Your task to perform on an android device: turn on the 24-hour format for clock Image 0: 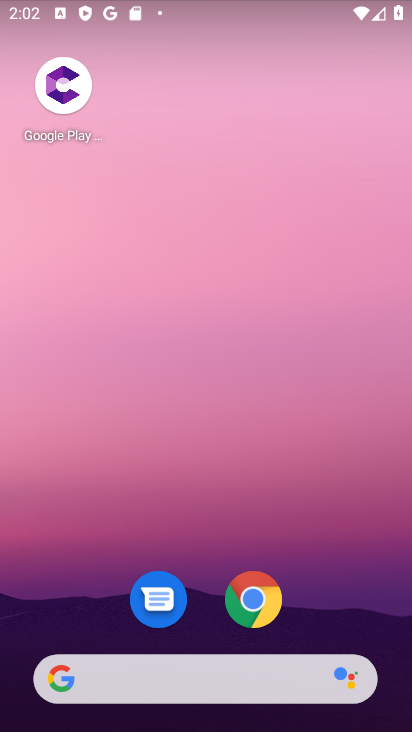
Step 0: drag from (337, 579) to (229, 21)
Your task to perform on an android device: turn on the 24-hour format for clock Image 1: 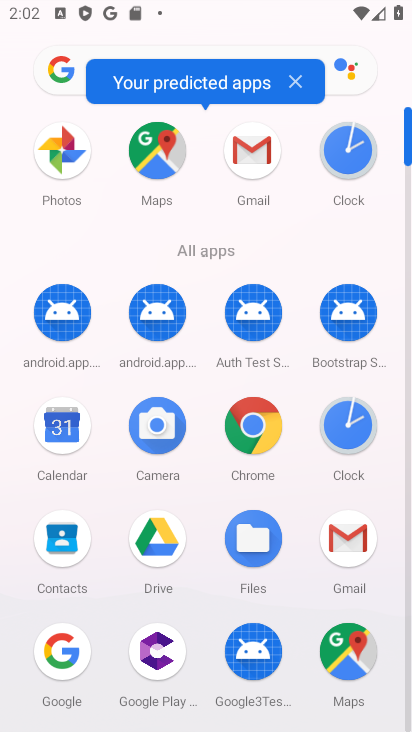
Step 1: click (355, 425)
Your task to perform on an android device: turn on the 24-hour format for clock Image 2: 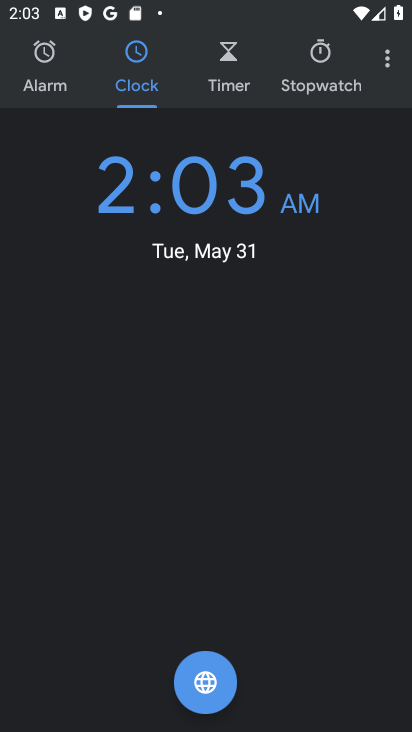
Step 2: click (381, 58)
Your task to perform on an android device: turn on the 24-hour format for clock Image 3: 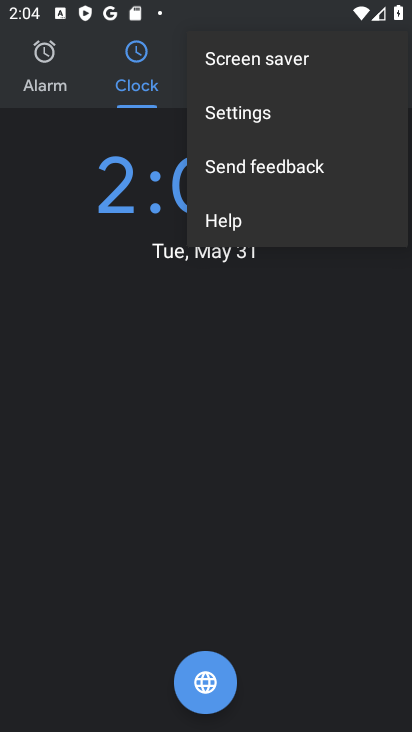
Step 3: click (256, 116)
Your task to perform on an android device: turn on the 24-hour format for clock Image 4: 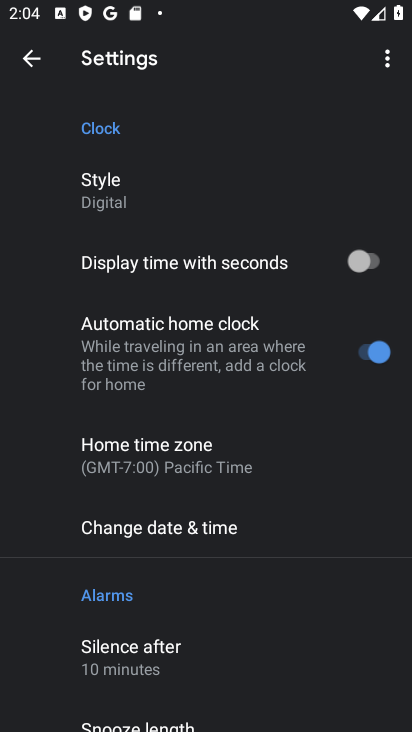
Step 4: click (224, 519)
Your task to perform on an android device: turn on the 24-hour format for clock Image 5: 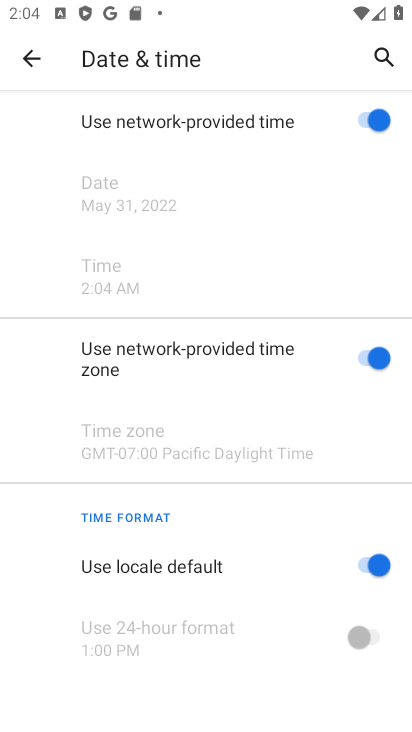
Step 5: click (380, 553)
Your task to perform on an android device: turn on the 24-hour format for clock Image 6: 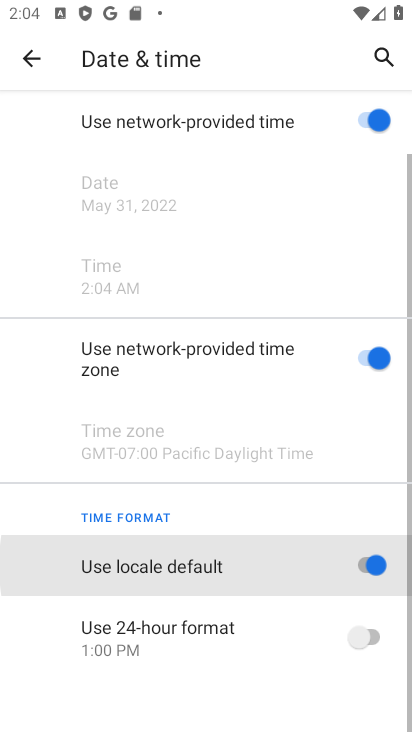
Step 6: click (357, 627)
Your task to perform on an android device: turn on the 24-hour format for clock Image 7: 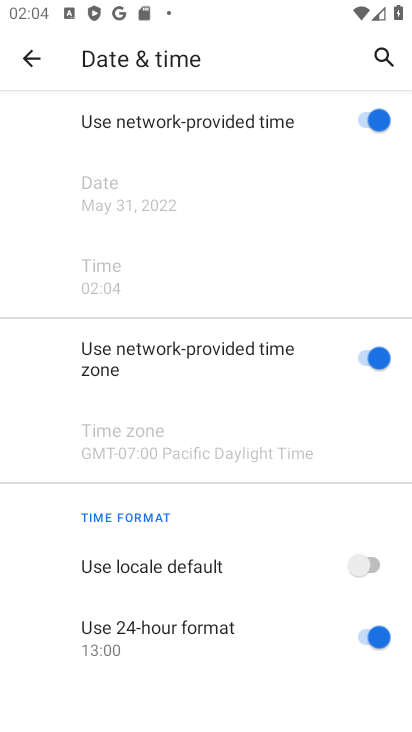
Step 7: task complete